Your task to perform on an android device: Open settings Image 0: 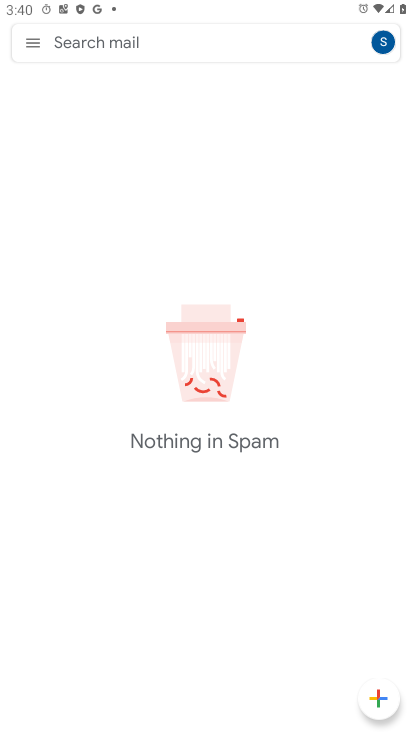
Step 0: press home button
Your task to perform on an android device: Open settings Image 1: 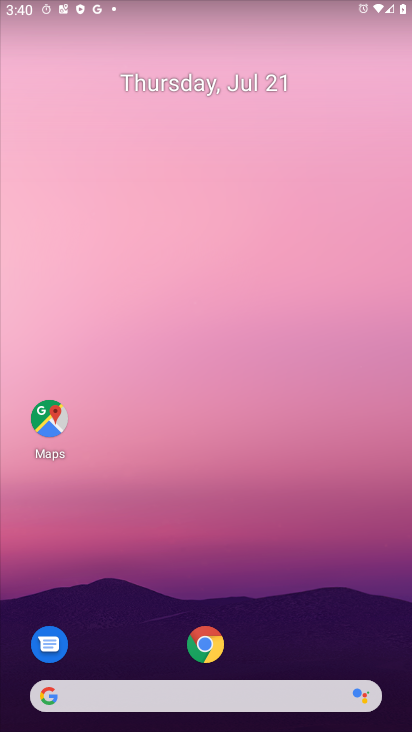
Step 1: drag from (316, 608) to (298, 108)
Your task to perform on an android device: Open settings Image 2: 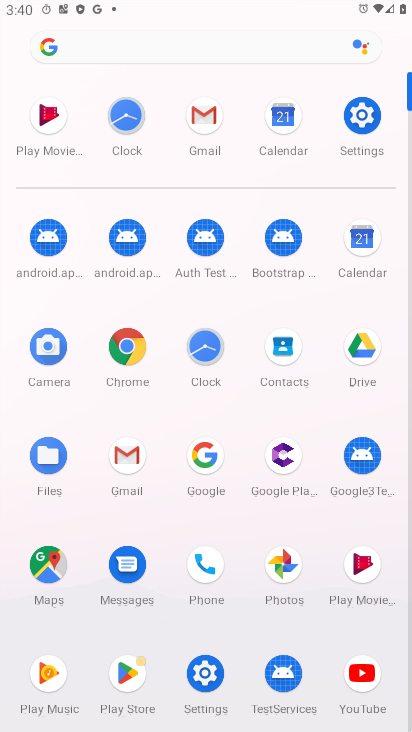
Step 2: click (367, 114)
Your task to perform on an android device: Open settings Image 3: 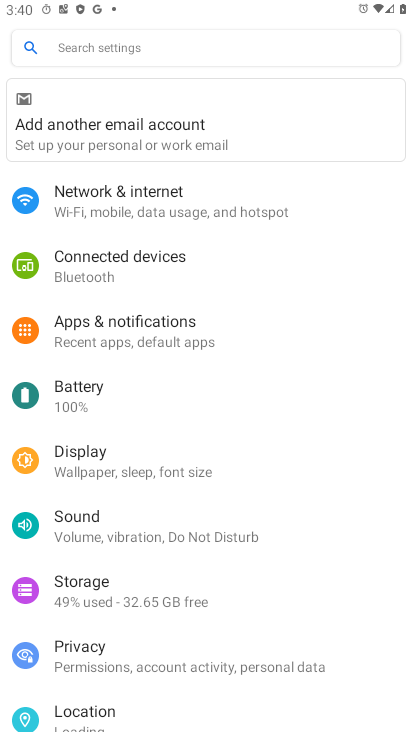
Step 3: task complete